Your task to perform on an android device: Do I have any events this weekend? Image 0: 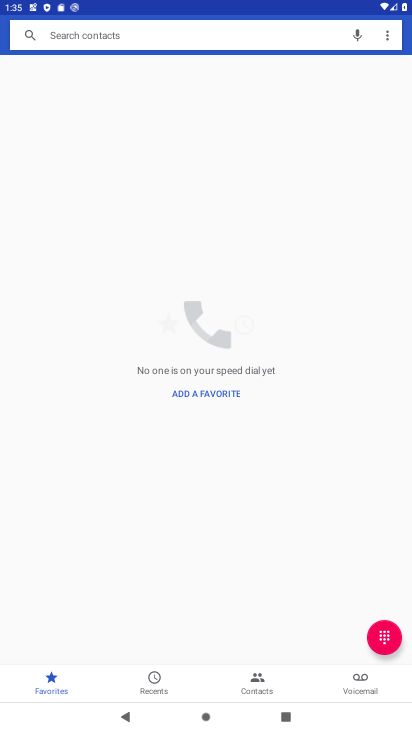
Step 0: press home button
Your task to perform on an android device: Do I have any events this weekend? Image 1: 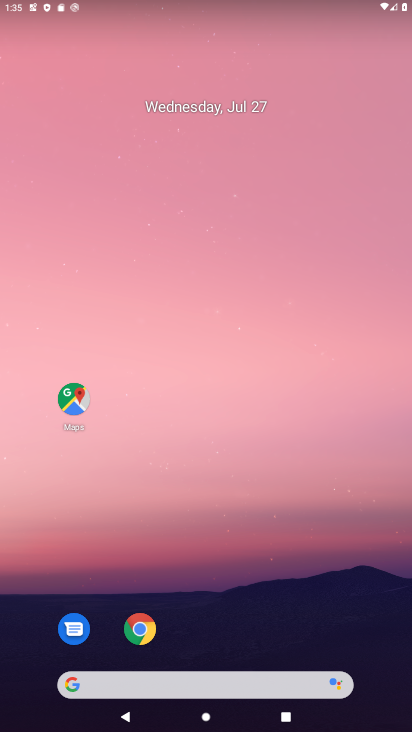
Step 1: drag from (342, 620) to (275, 15)
Your task to perform on an android device: Do I have any events this weekend? Image 2: 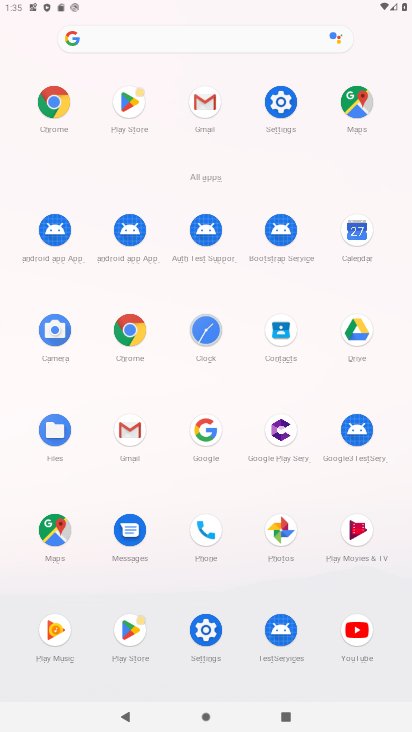
Step 2: click (361, 238)
Your task to perform on an android device: Do I have any events this weekend? Image 3: 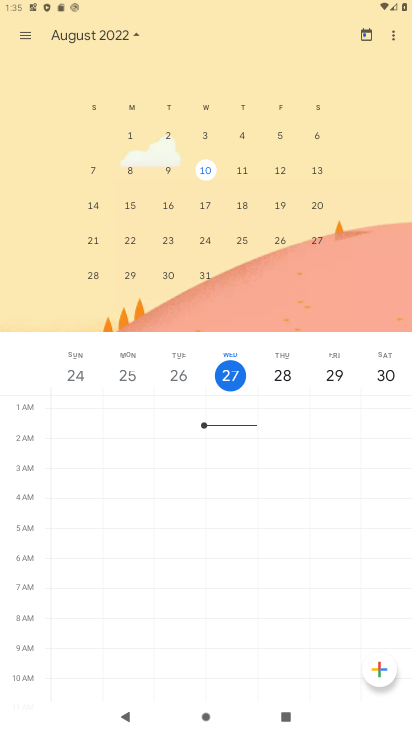
Step 3: click (22, 35)
Your task to perform on an android device: Do I have any events this weekend? Image 4: 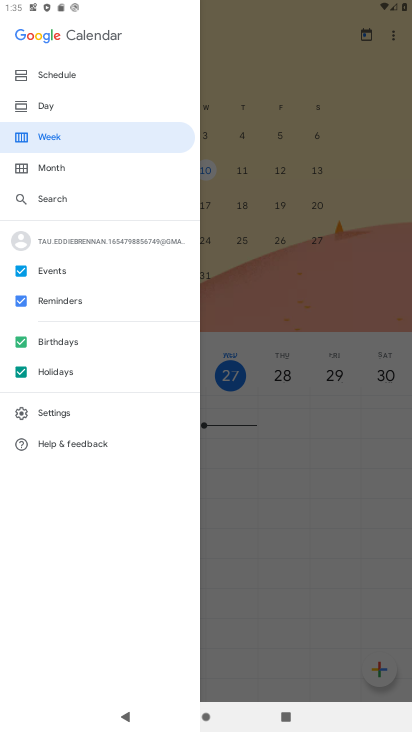
Step 4: click (25, 373)
Your task to perform on an android device: Do I have any events this weekend? Image 5: 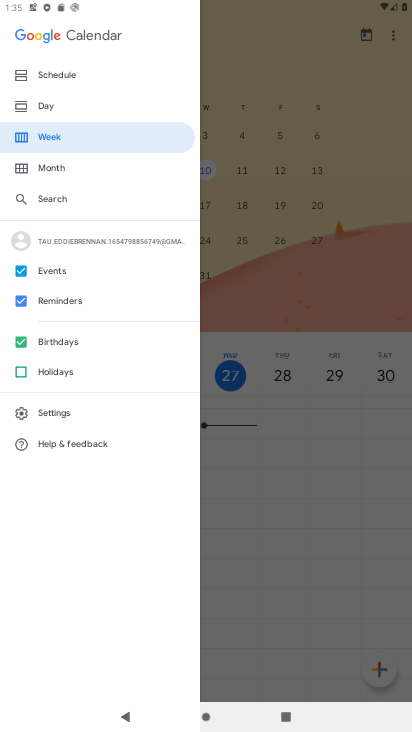
Step 5: click (19, 338)
Your task to perform on an android device: Do I have any events this weekend? Image 6: 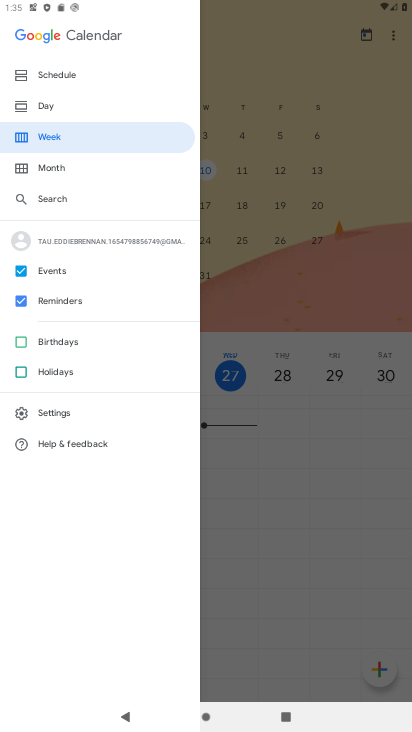
Step 6: click (19, 305)
Your task to perform on an android device: Do I have any events this weekend? Image 7: 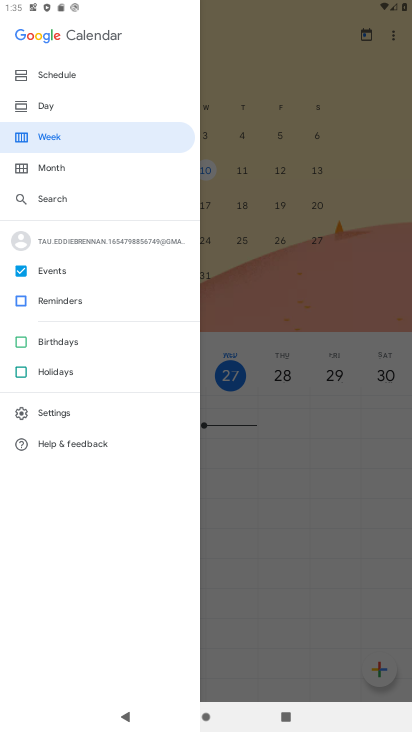
Step 7: click (16, 271)
Your task to perform on an android device: Do I have any events this weekend? Image 8: 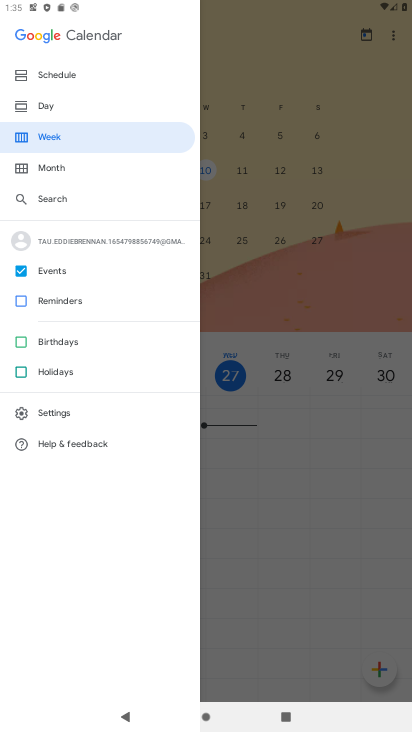
Step 8: click (46, 136)
Your task to perform on an android device: Do I have any events this weekend? Image 9: 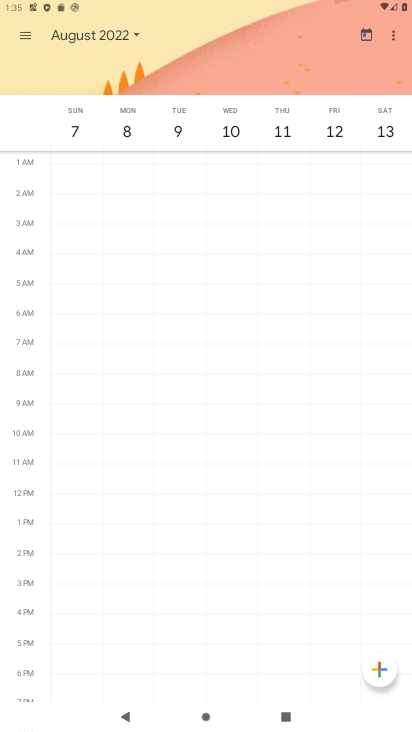
Step 9: click (96, 45)
Your task to perform on an android device: Do I have any events this weekend? Image 10: 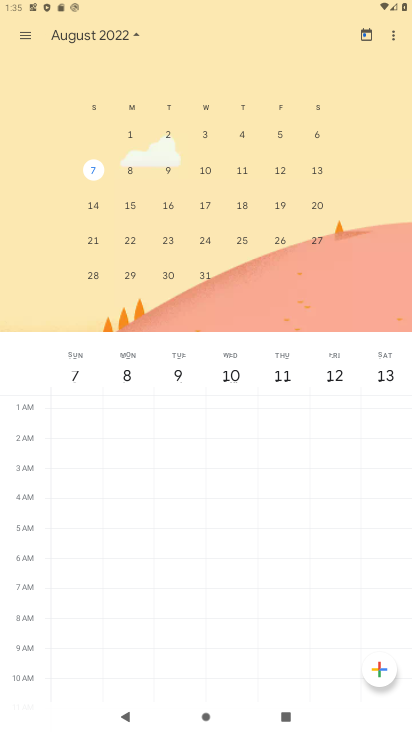
Step 10: drag from (88, 119) to (377, 185)
Your task to perform on an android device: Do I have any events this weekend? Image 11: 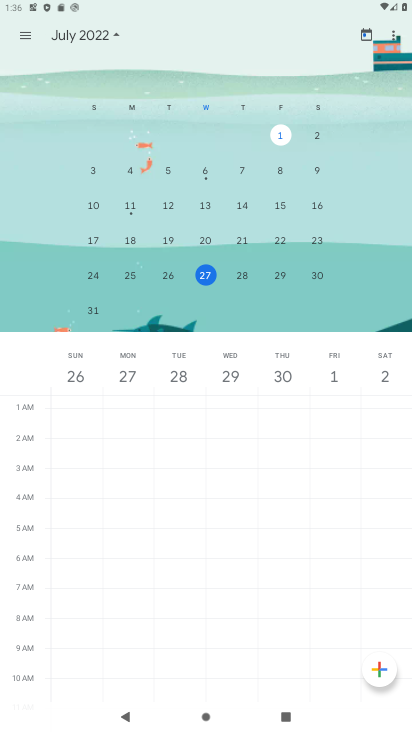
Step 11: click (386, 374)
Your task to perform on an android device: Do I have any events this weekend? Image 12: 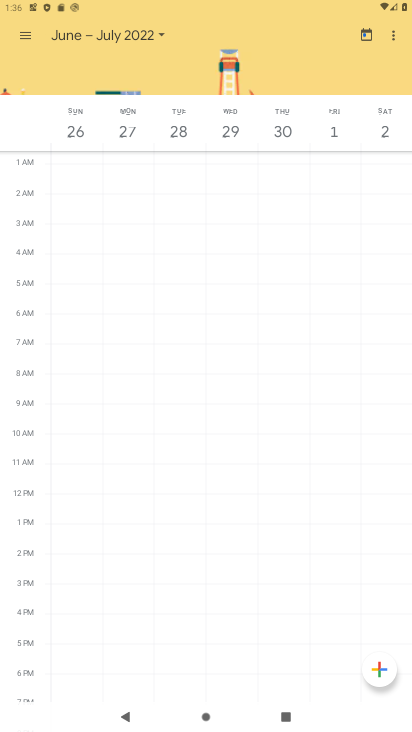
Step 12: task complete